Your task to perform on an android device: turn off javascript in the chrome app Image 0: 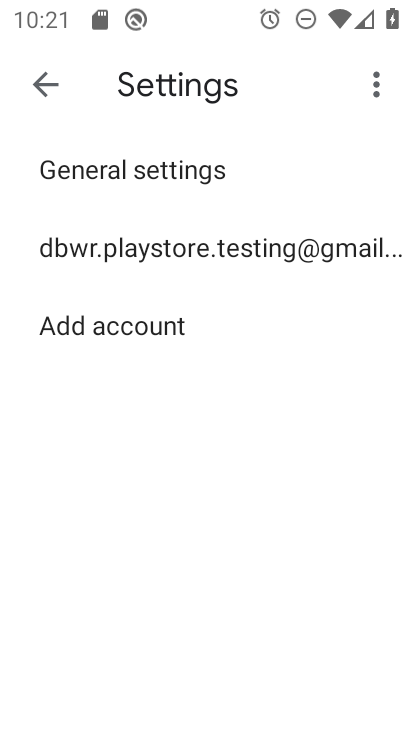
Step 0: press home button
Your task to perform on an android device: turn off javascript in the chrome app Image 1: 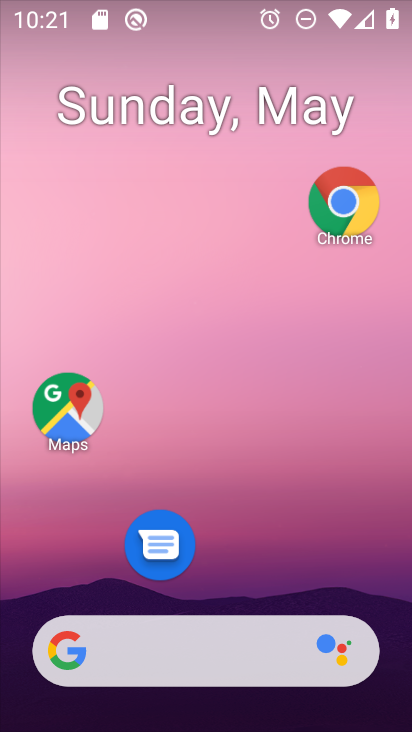
Step 1: click (359, 217)
Your task to perform on an android device: turn off javascript in the chrome app Image 2: 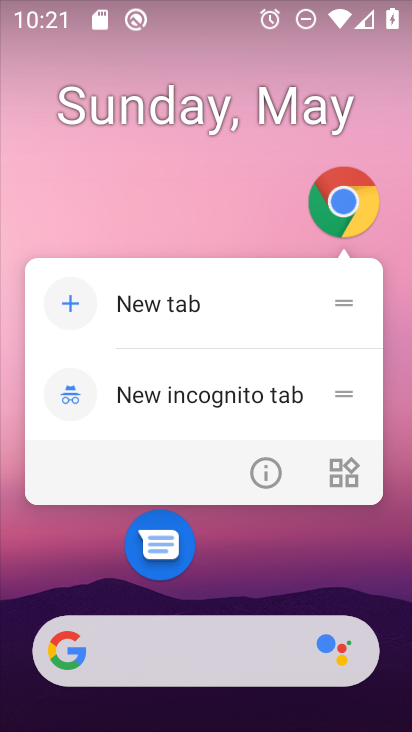
Step 2: click (353, 200)
Your task to perform on an android device: turn off javascript in the chrome app Image 3: 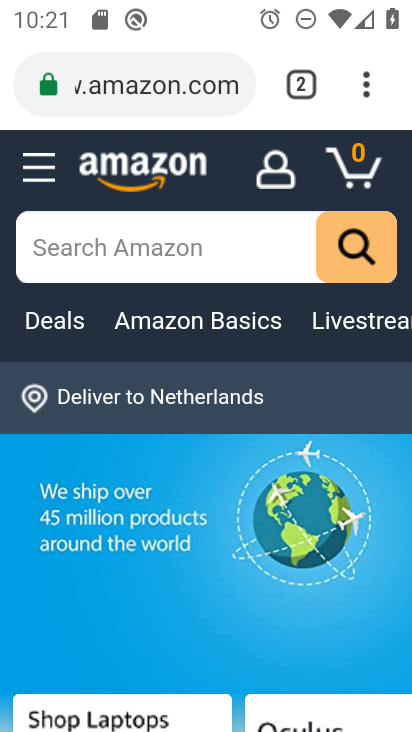
Step 3: click (367, 90)
Your task to perform on an android device: turn off javascript in the chrome app Image 4: 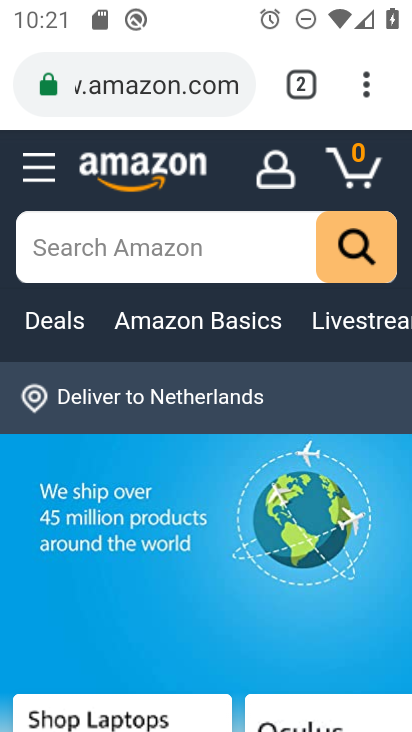
Step 4: click (372, 123)
Your task to perform on an android device: turn off javascript in the chrome app Image 5: 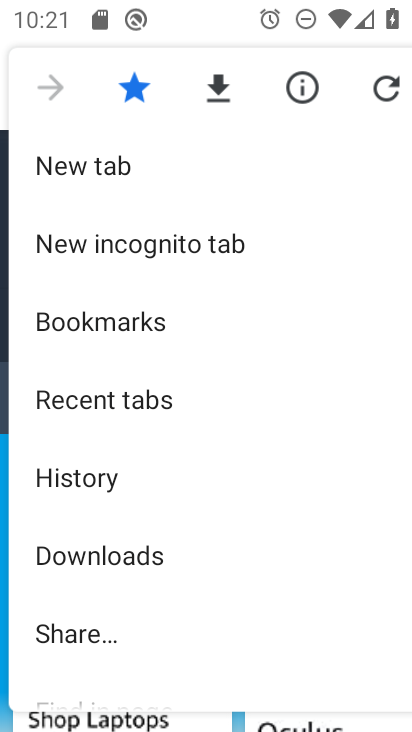
Step 5: drag from (196, 610) to (188, 231)
Your task to perform on an android device: turn off javascript in the chrome app Image 6: 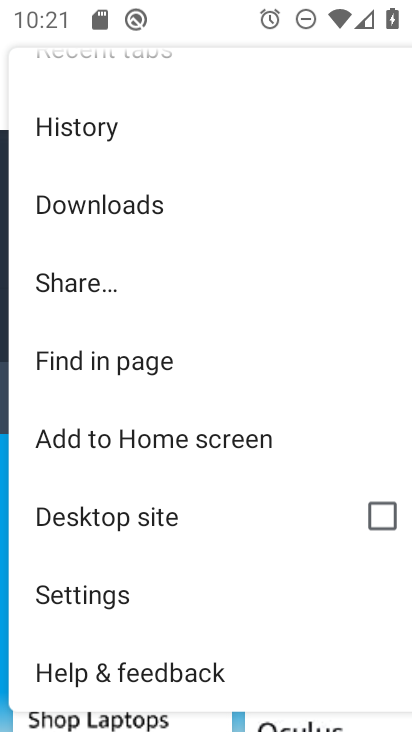
Step 6: drag from (268, 606) to (258, 340)
Your task to perform on an android device: turn off javascript in the chrome app Image 7: 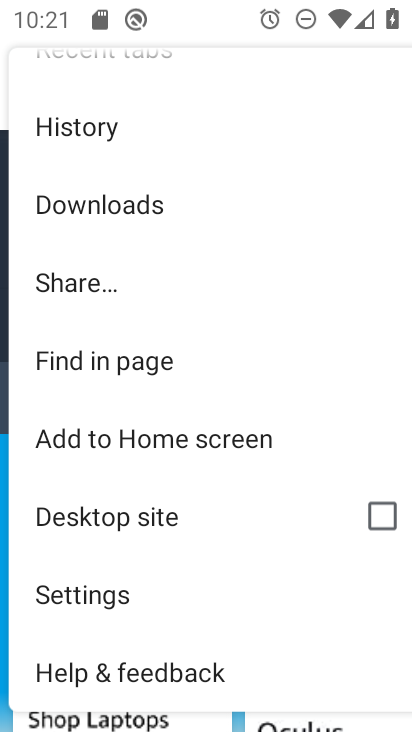
Step 7: click (128, 590)
Your task to perform on an android device: turn off javascript in the chrome app Image 8: 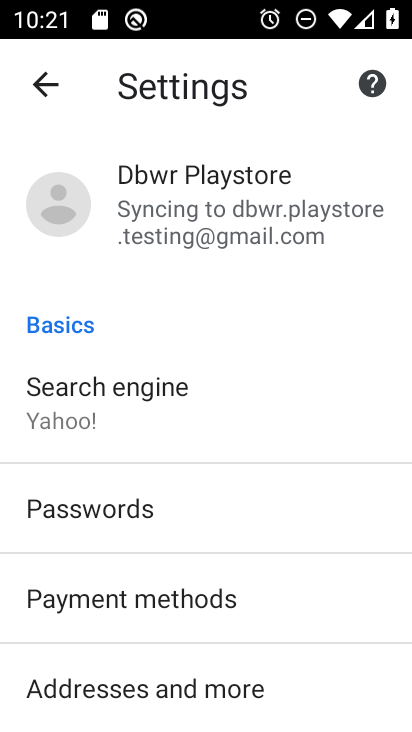
Step 8: drag from (196, 653) to (181, 221)
Your task to perform on an android device: turn off javascript in the chrome app Image 9: 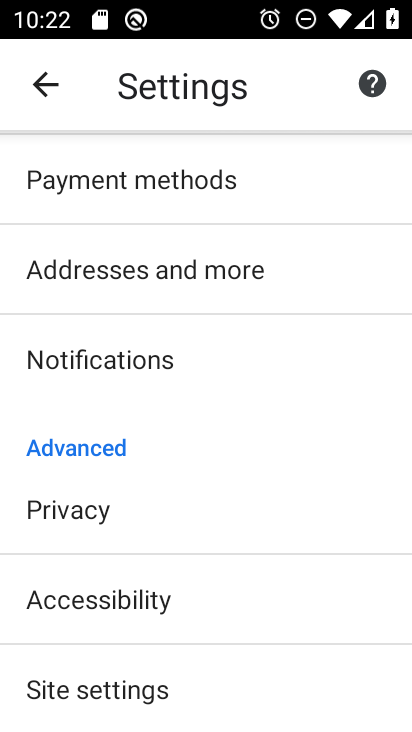
Step 9: click (192, 696)
Your task to perform on an android device: turn off javascript in the chrome app Image 10: 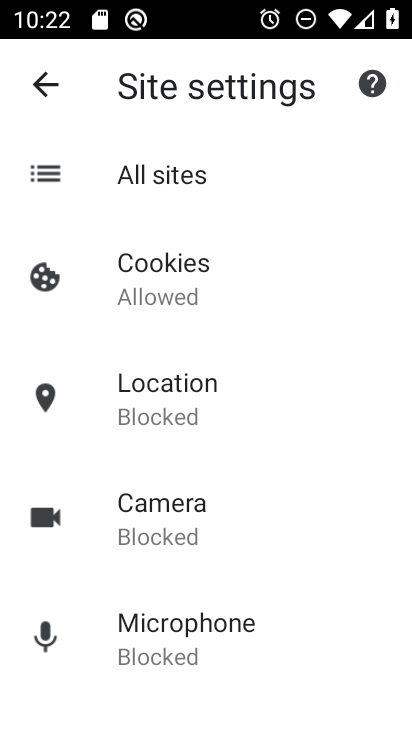
Step 10: drag from (200, 690) to (249, 311)
Your task to perform on an android device: turn off javascript in the chrome app Image 11: 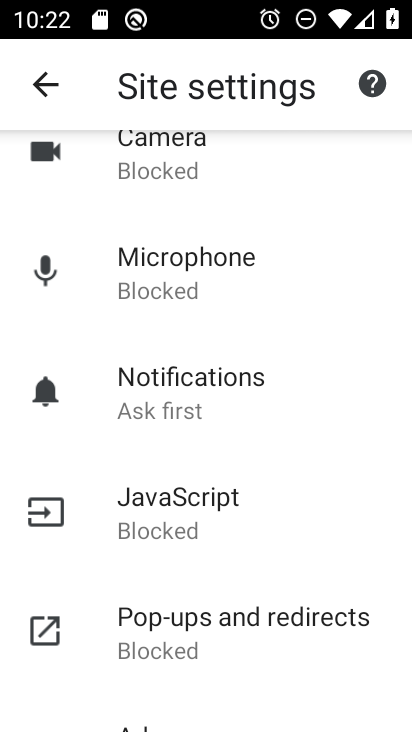
Step 11: click (245, 507)
Your task to perform on an android device: turn off javascript in the chrome app Image 12: 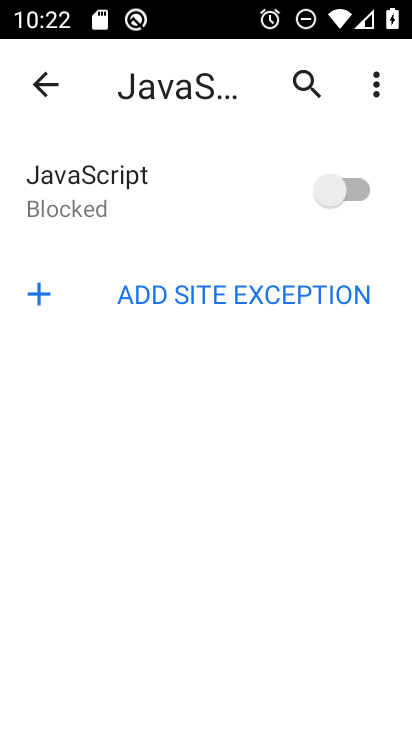
Step 12: task complete